Your task to perform on an android device: turn on priority inbox in the gmail app Image 0: 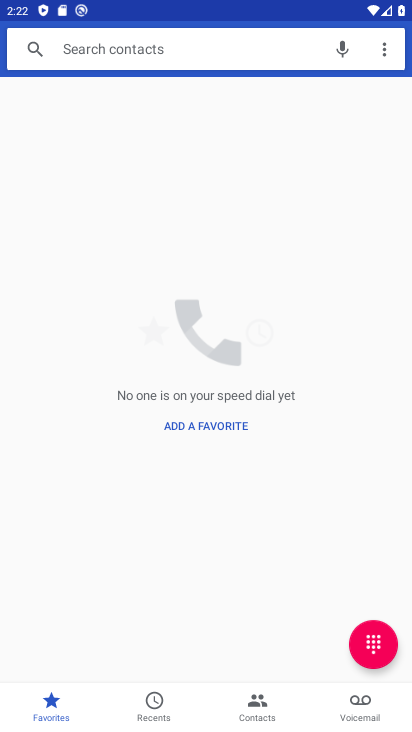
Step 0: press home button
Your task to perform on an android device: turn on priority inbox in the gmail app Image 1: 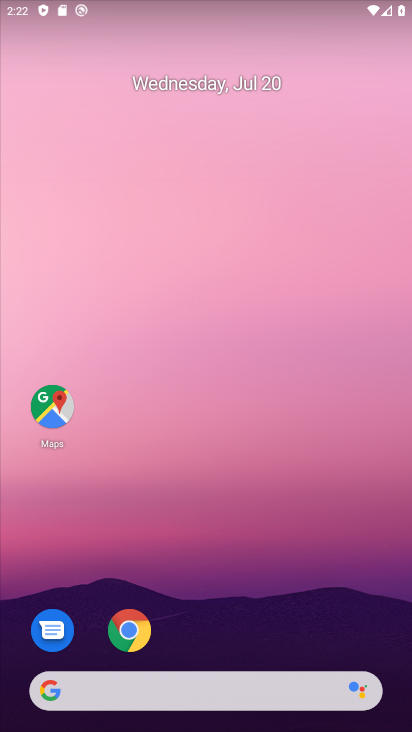
Step 1: drag from (264, 595) to (248, 127)
Your task to perform on an android device: turn on priority inbox in the gmail app Image 2: 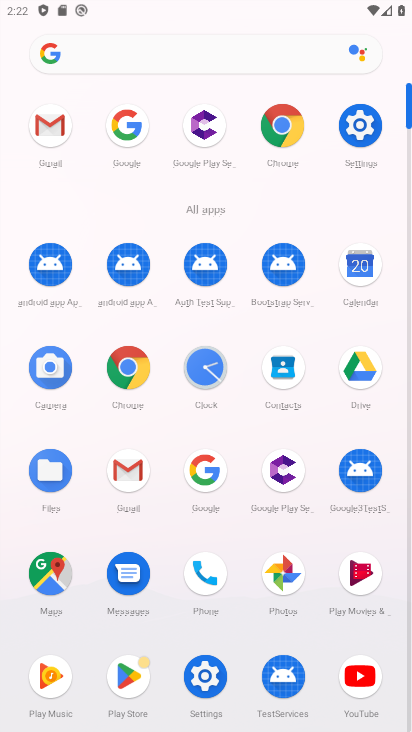
Step 2: click (121, 466)
Your task to perform on an android device: turn on priority inbox in the gmail app Image 3: 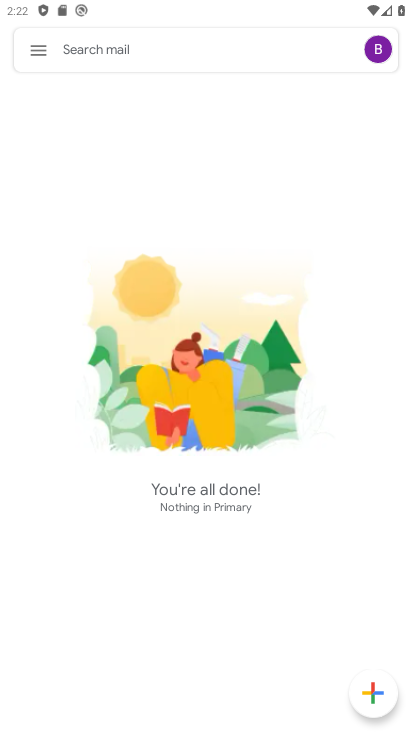
Step 3: click (30, 58)
Your task to perform on an android device: turn on priority inbox in the gmail app Image 4: 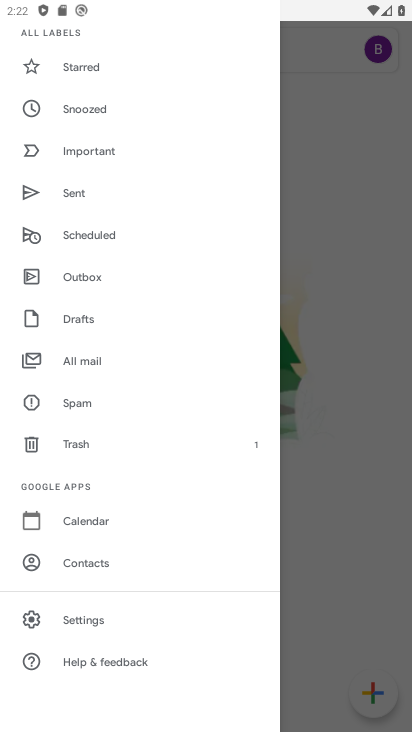
Step 4: click (83, 621)
Your task to perform on an android device: turn on priority inbox in the gmail app Image 5: 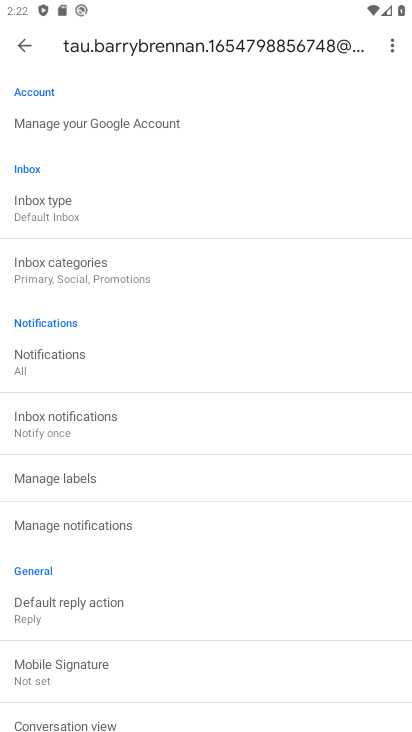
Step 5: click (59, 220)
Your task to perform on an android device: turn on priority inbox in the gmail app Image 6: 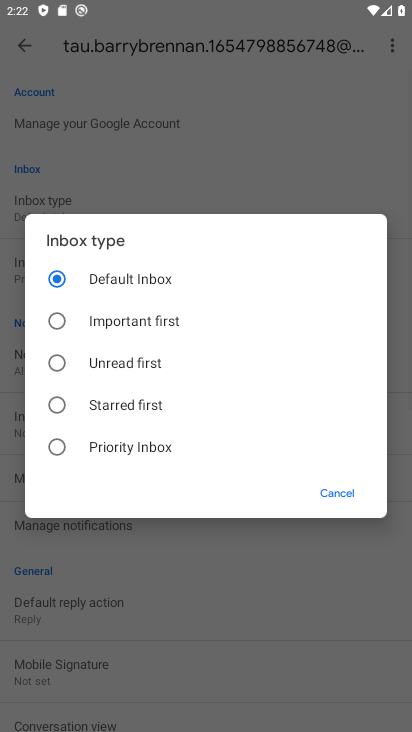
Step 6: click (111, 455)
Your task to perform on an android device: turn on priority inbox in the gmail app Image 7: 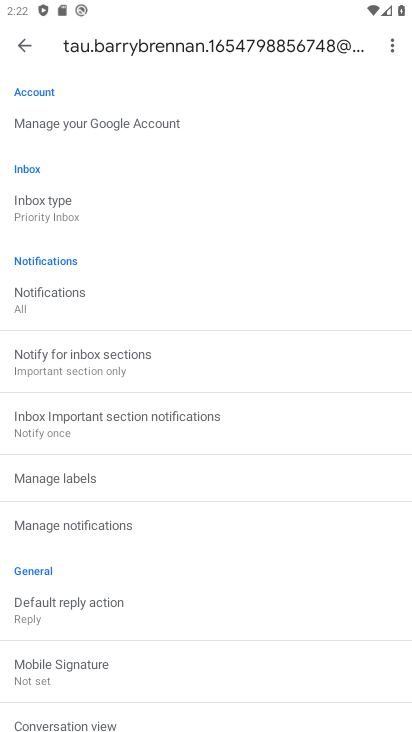
Step 7: task complete